Your task to perform on an android device: Open CNN.com Image 0: 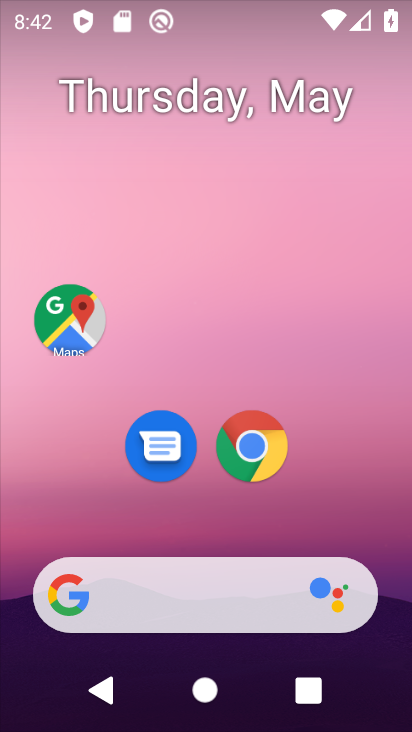
Step 0: click (249, 442)
Your task to perform on an android device: Open CNN.com Image 1: 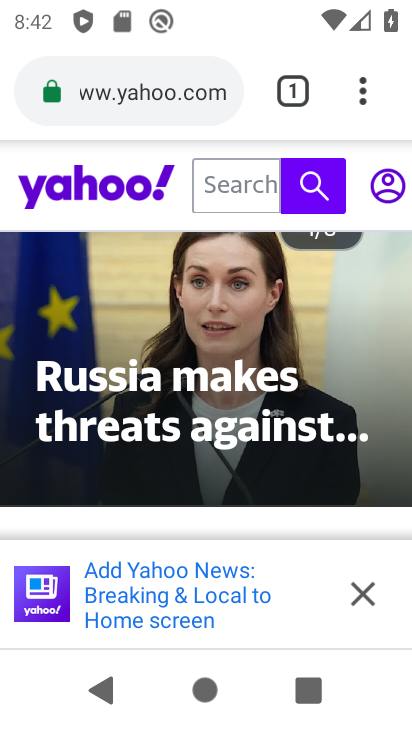
Step 1: click (210, 89)
Your task to perform on an android device: Open CNN.com Image 2: 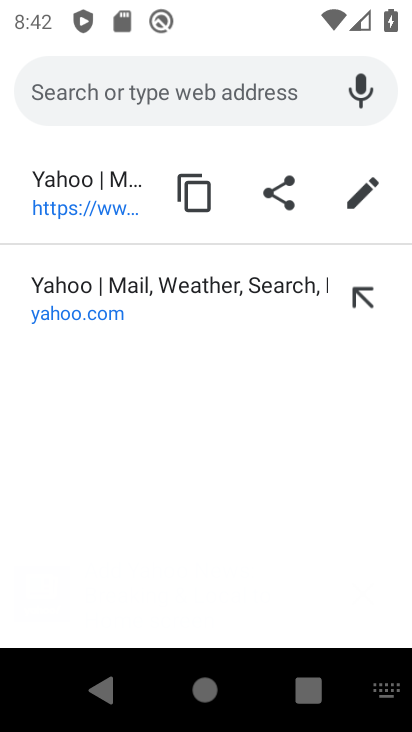
Step 2: type "cnn.com"
Your task to perform on an android device: Open CNN.com Image 3: 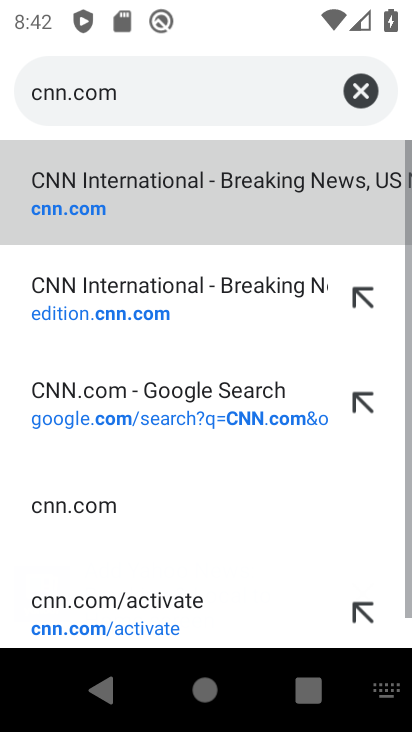
Step 3: click (123, 196)
Your task to perform on an android device: Open CNN.com Image 4: 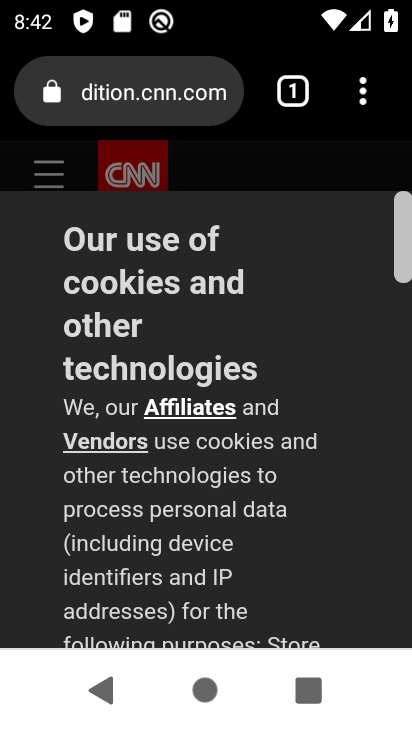
Step 4: task complete